Your task to perform on an android device: What's the weather today? Image 0: 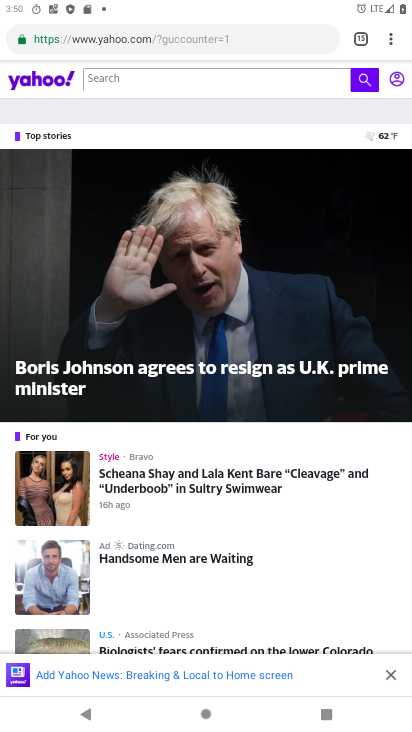
Step 0: press home button
Your task to perform on an android device: What's the weather today? Image 1: 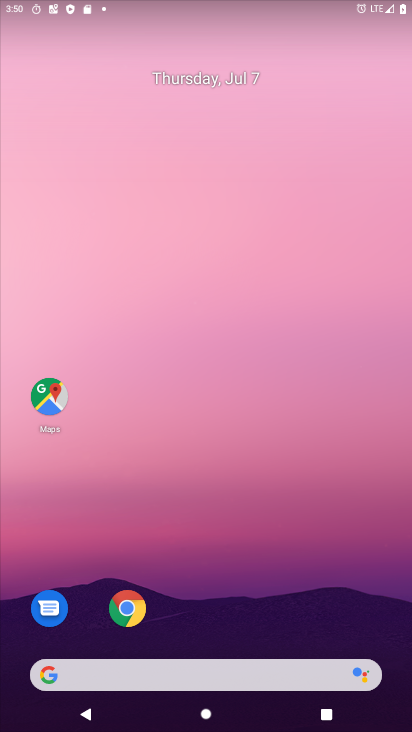
Step 1: drag from (275, 721) to (267, 122)
Your task to perform on an android device: What's the weather today? Image 2: 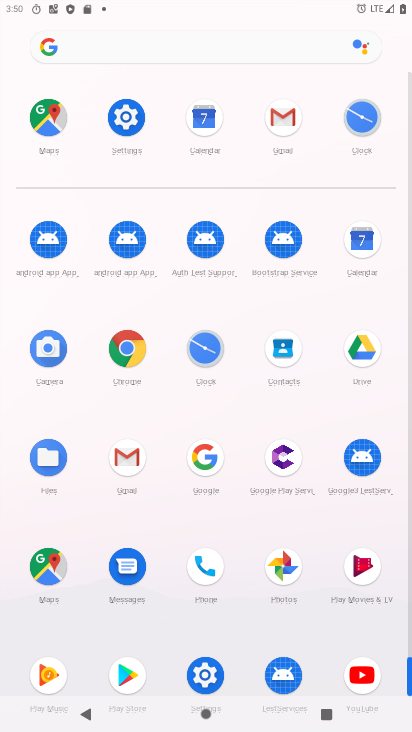
Step 2: click (208, 459)
Your task to perform on an android device: What's the weather today? Image 3: 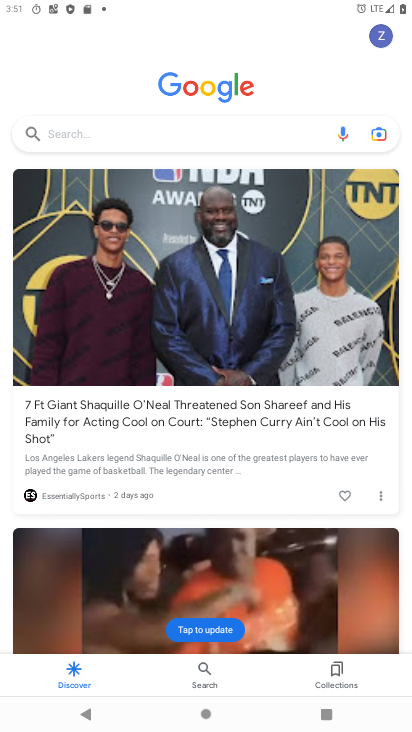
Step 3: click (226, 127)
Your task to perform on an android device: What's the weather today? Image 4: 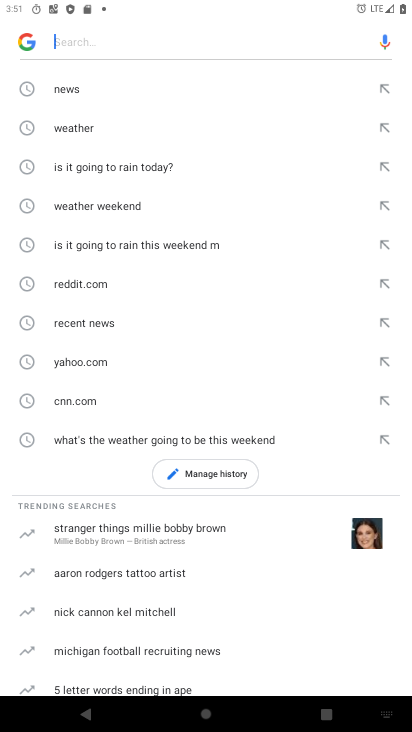
Step 4: click (75, 124)
Your task to perform on an android device: What's the weather today? Image 5: 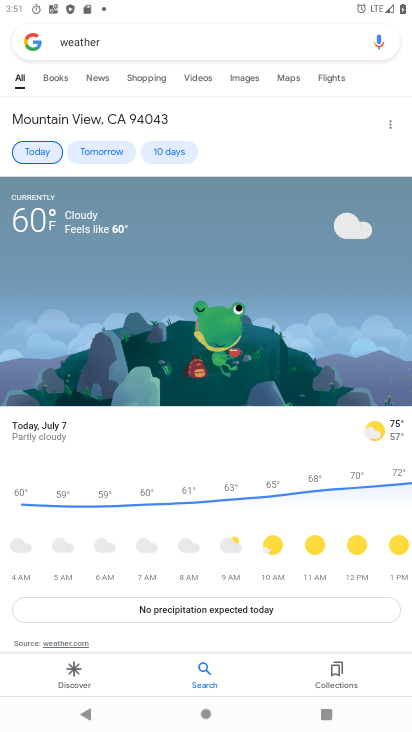
Step 5: click (35, 150)
Your task to perform on an android device: What's the weather today? Image 6: 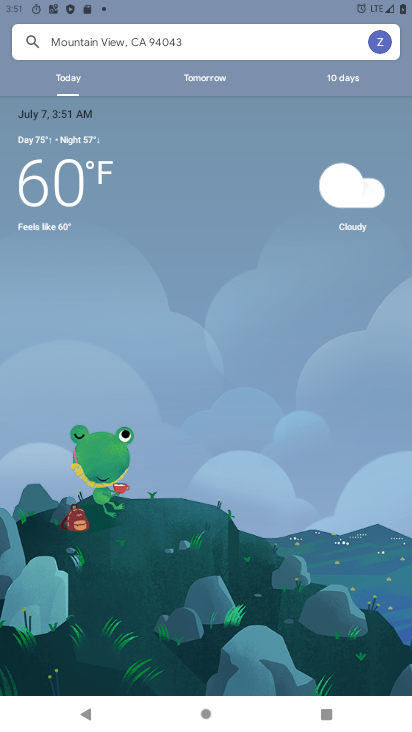
Step 6: task complete